Your task to perform on an android device: Toggle the flashlight Image 0: 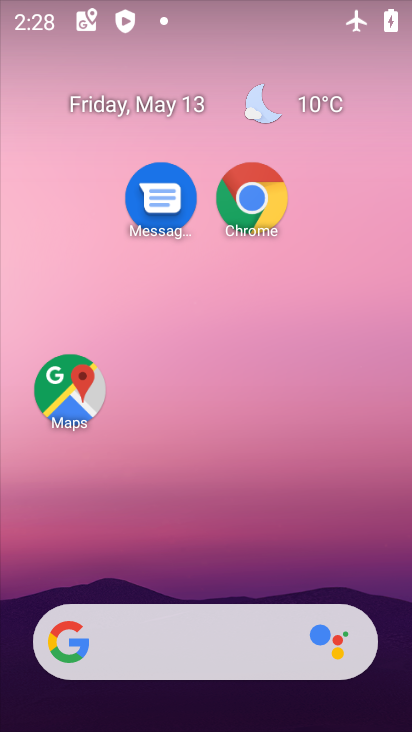
Step 0: drag from (227, 589) to (262, 24)
Your task to perform on an android device: Toggle the flashlight Image 1: 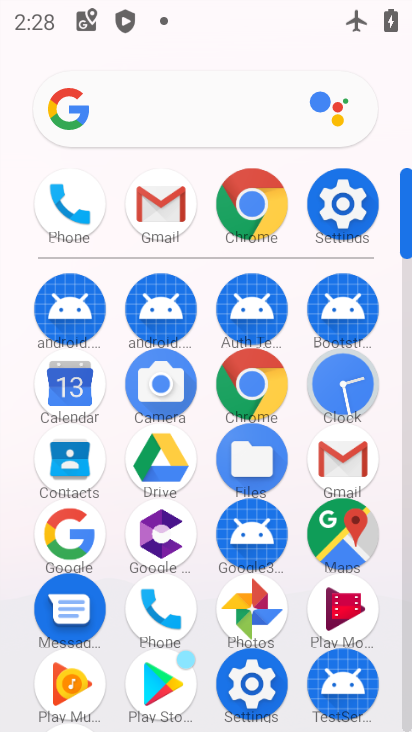
Step 1: click (340, 213)
Your task to perform on an android device: Toggle the flashlight Image 2: 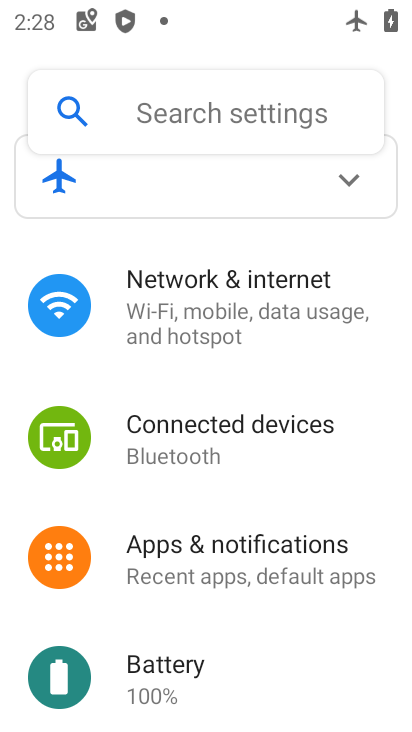
Step 2: click (203, 117)
Your task to perform on an android device: Toggle the flashlight Image 3: 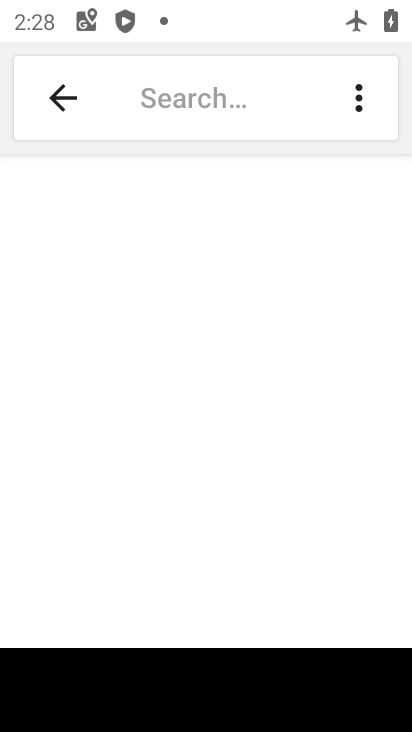
Step 3: type "flashlight"
Your task to perform on an android device: Toggle the flashlight Image 4: 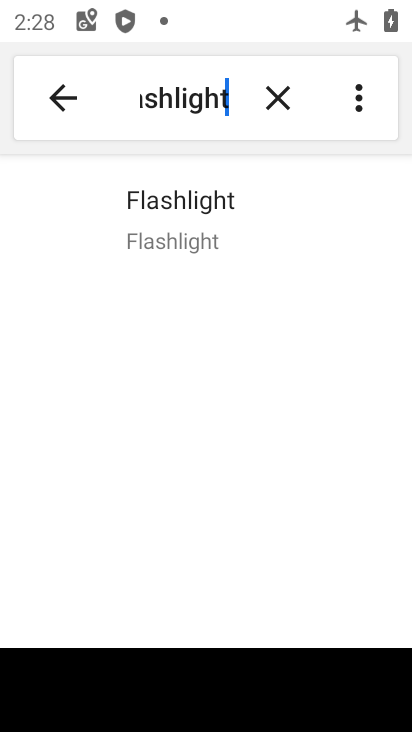
Step 4: task complete